Your task to perform on an android device: turn on airplane mode Image 0: 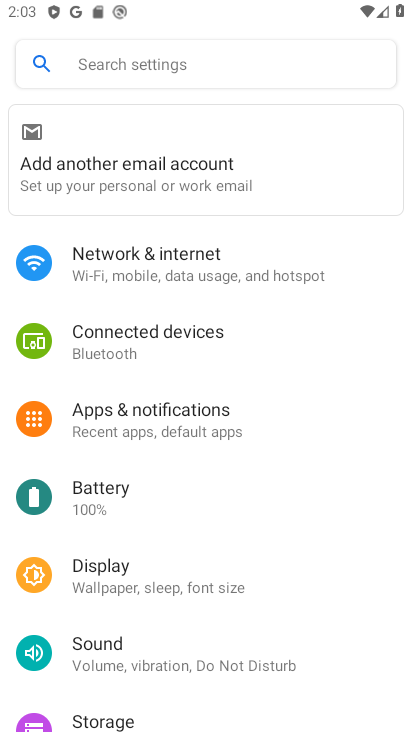
Step 0: press home button
Your task to perform on an android device: turn on airplane mode Image 1: 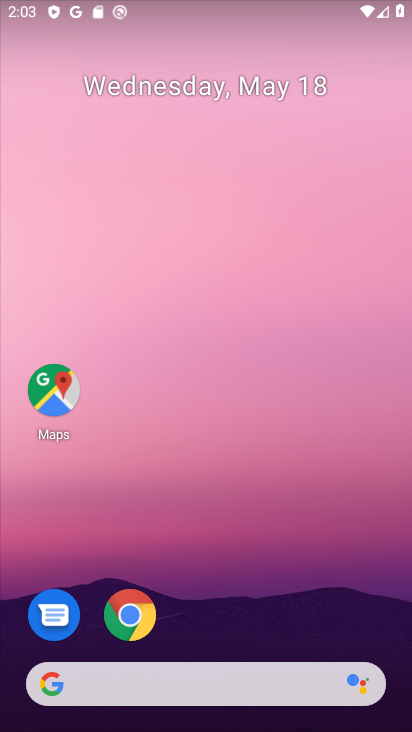
Step 1: drag from (200, 598) to (227, 352)
Your task to perform on an android device: turn on airplane mode Image 2: 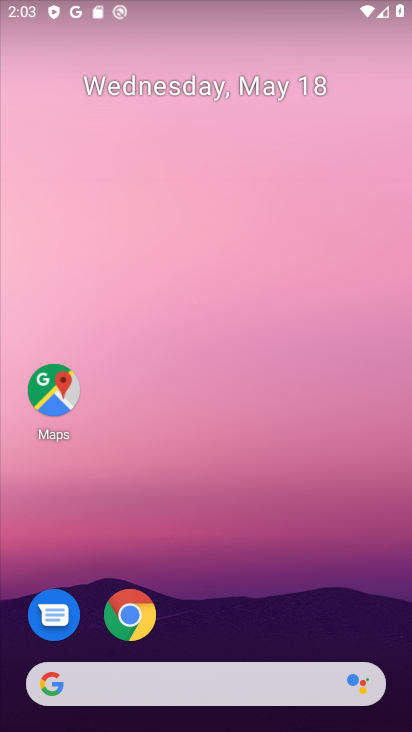
Step 2: drag from (193, 623) to (210, 235)
Your task to perform on an android device: turn on airplane mode Image 3: 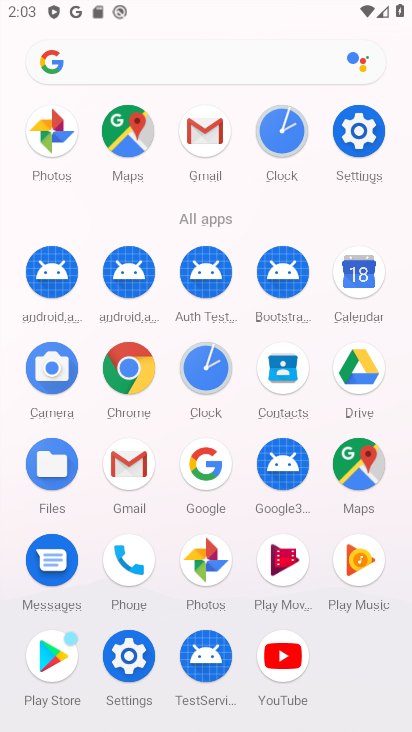
Step 3: click (354, 129)
Your task to perform on an android device: turn on airplane mode Image 4: 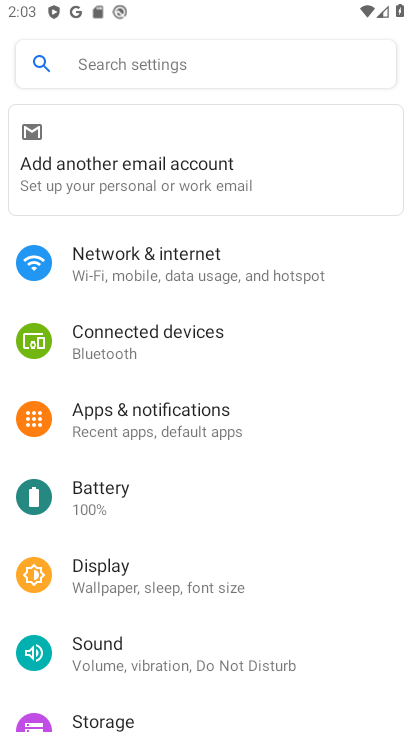
Step 4: click (174, 276)
Your task to perform on an android device: turn on airplane mode Image 5: 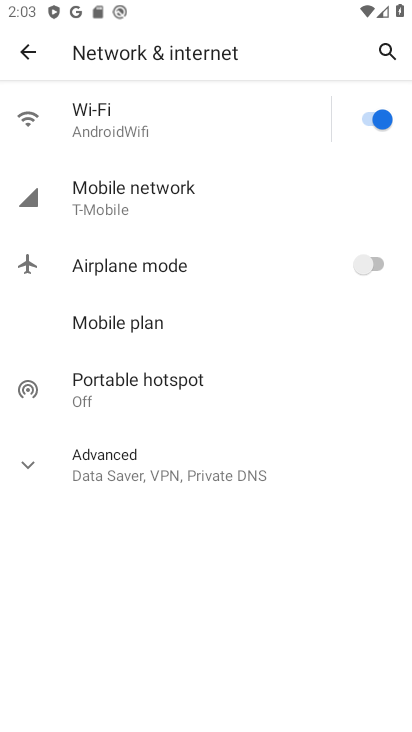
Step 5: click (367, 271)
Your task to perform on an android device: turn on airplane mode Image 6: 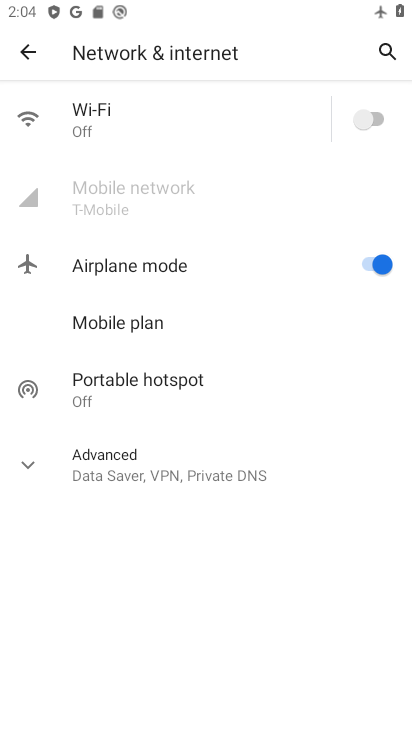
Step 6: task complete